Your task to perform on an android device: Open network settings Image 0: 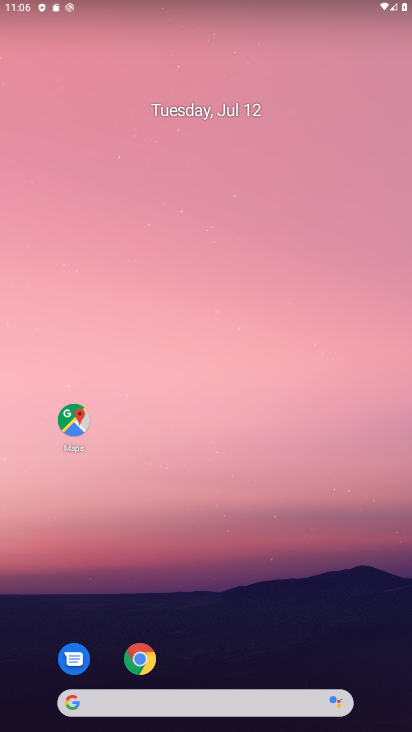
Step 0: drag from (220, 664) to (249, 108)
Your task to perform on an android device: Open network settings Image 1: 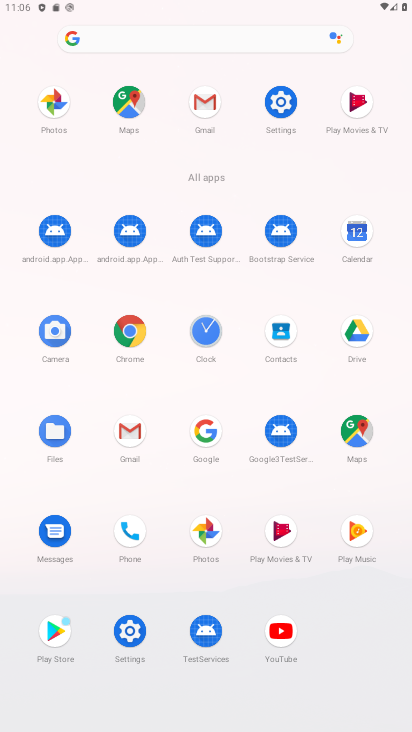
Step 1: click (272, 100)
Your task to perform on an android device: Open network settings Image 2: 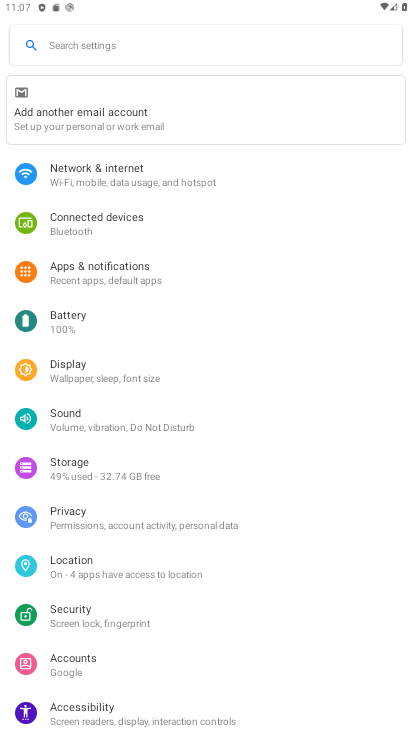
Step 2: click (116, 182)
Your task to perform on an android device: Open network settings Image 3: 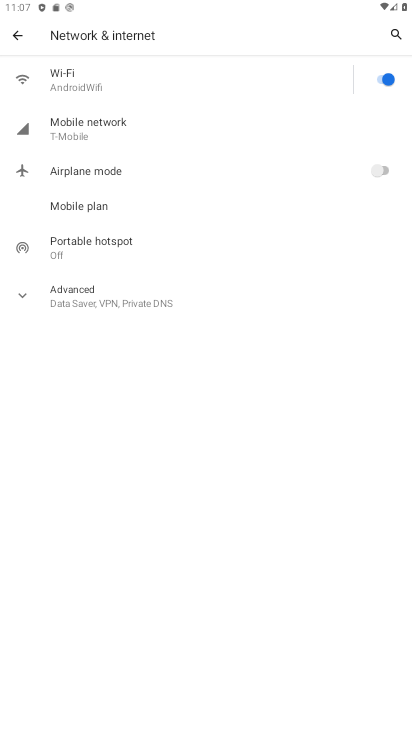
Step 3: task complete